Your task to perform on an android device: Search for Mexican restaurants on Maps Image 0: 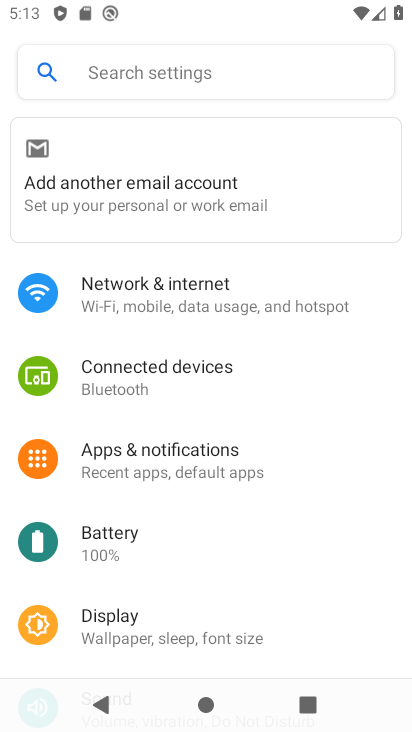
Step 0: press home button
Your task to perform on an android device: Search for Mexican restaurants on Maps Image 1: 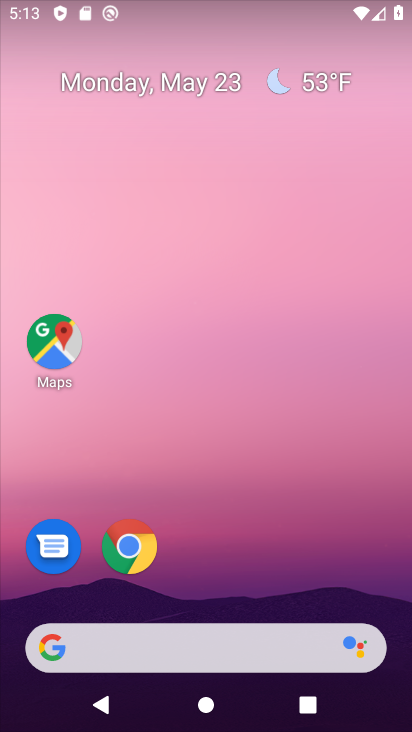
Step 1: click (56, 340)
Your task to perform on an android device: Search for Mexican restaurants on Maps Image 2: 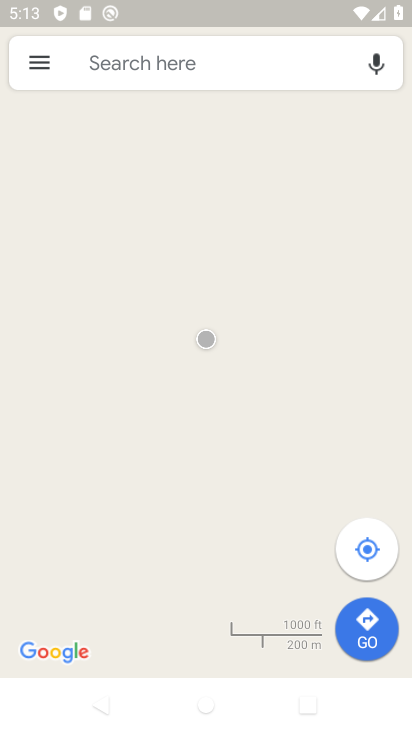
Step 2: click (224, 62)
Your task to perform on an android device: Search for Mexican restaurants on Maps Image 3: 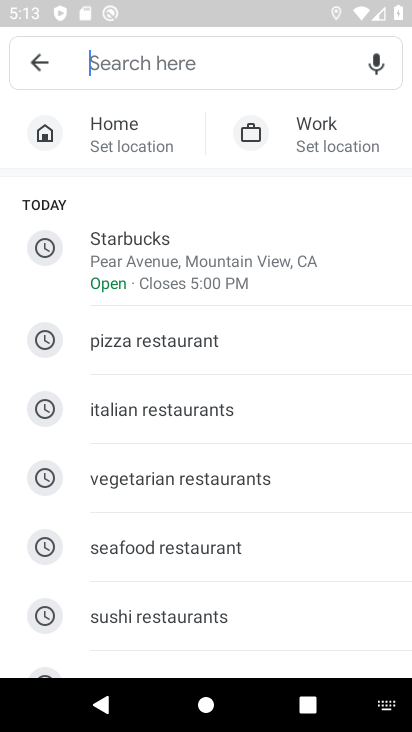
Step 3: type "Mexican Restaurants"
Your task to perform on an android device: Search for Mexican restaurants on Maps Image 4: 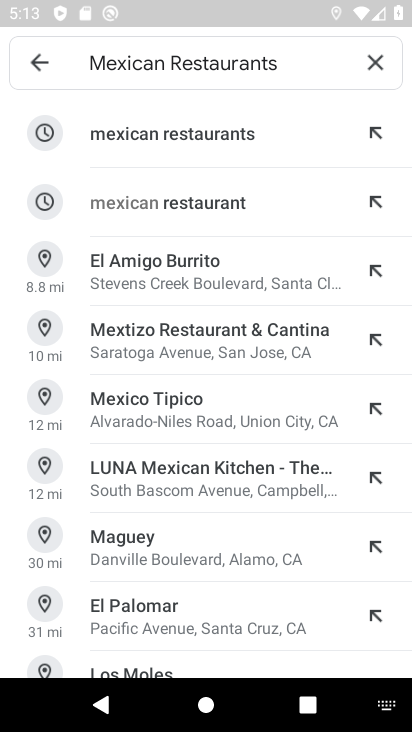
Step 4: click (186, 136)
Your task to perform on an android device: Search for Mexican restaurants on Maps Image 5: 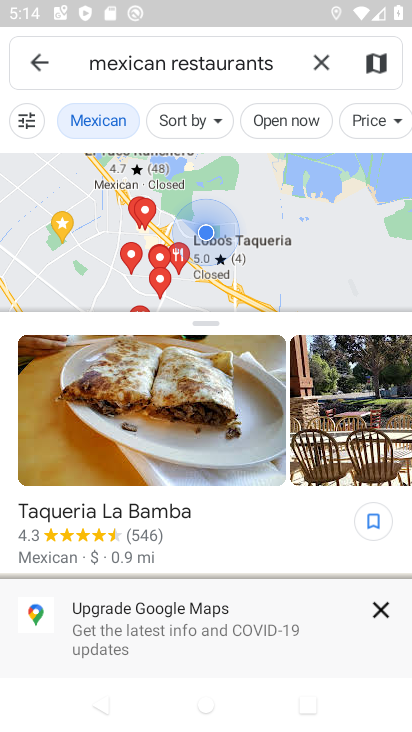
Step 5: task complete